Your task to perform on an android device: manage bookmarks in the chrome app Image 0: 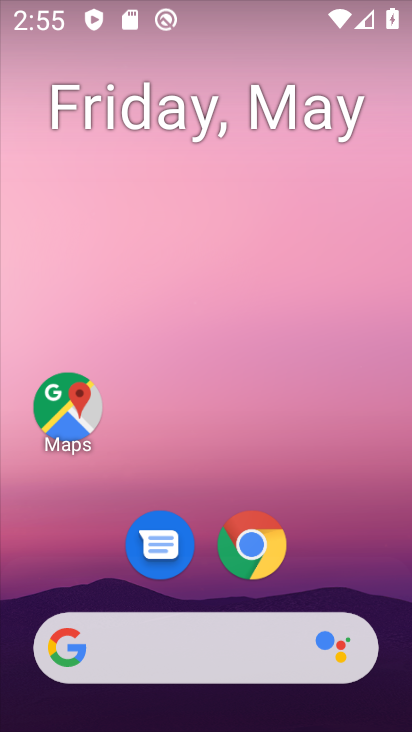
Step 0: click (256, 530)
Your task to perform on an android device: manage bookmarks in the chrome app Image 1: 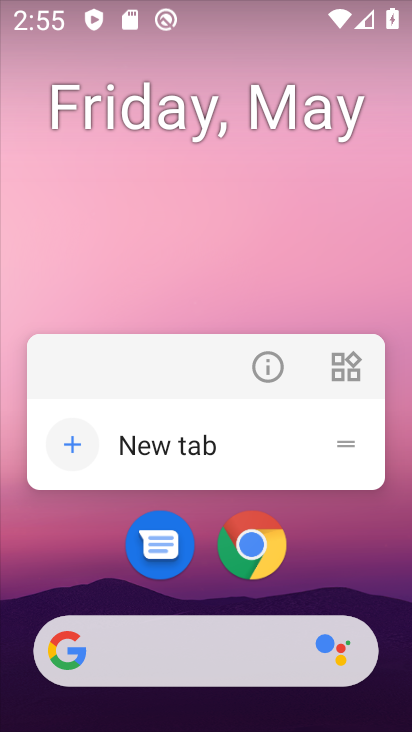
Step 1: click (245, 552)
Your task to perform on an android device: manage bookmarks in the chrome app Image 2: 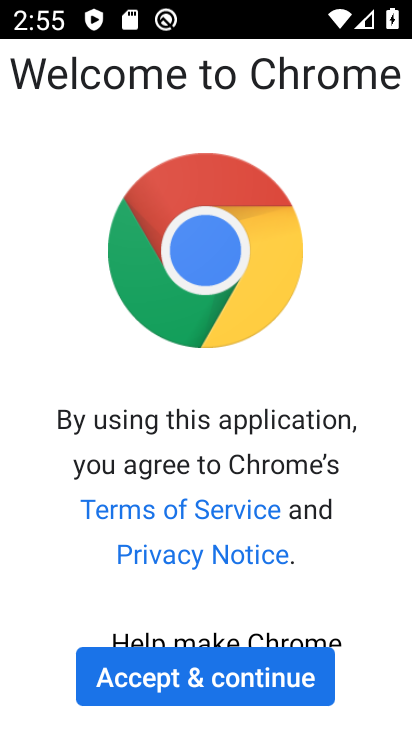
Step 2: click (195, 674)
Your task to perform on an android device: manage bookmarks in the chrome app Image 3: 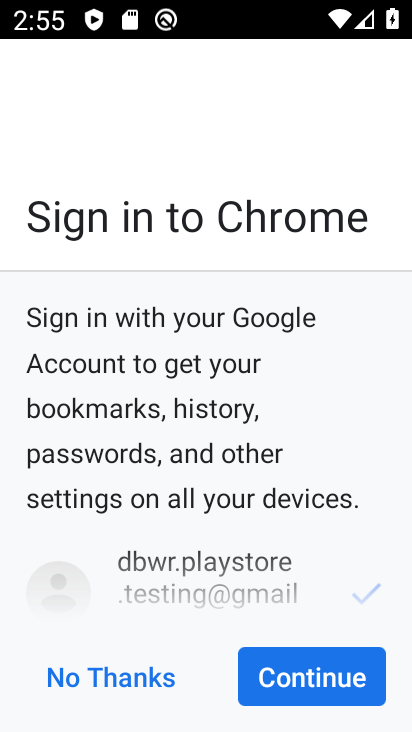
Step 3: click (294, 669)
Your task to perform on an android device: manage bookmarks in the chrome app Image 4: 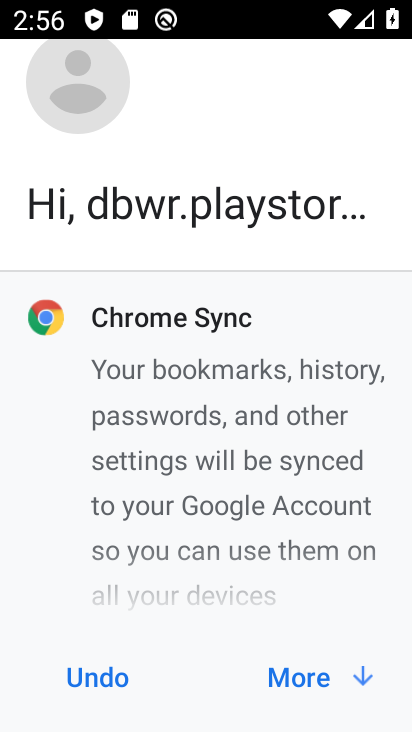
Step 4: click (322, 678)
Your task to perform on an android device: manage bookmarks in the chrome app Image 5: 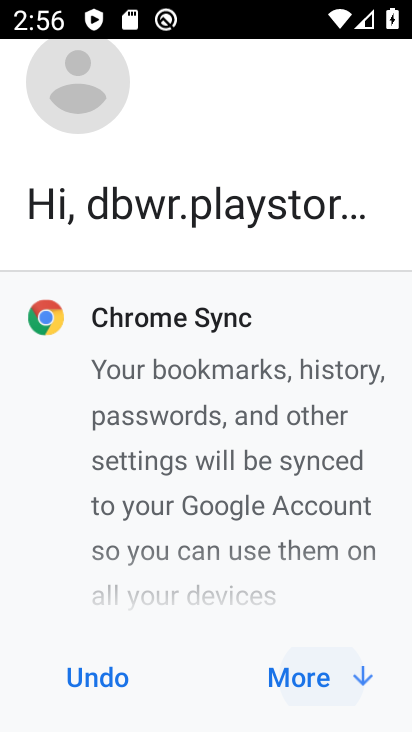
Step 5: click (322, 678)
Your task to perform on an android device: manage bookmarks in the chrome app Image 6: 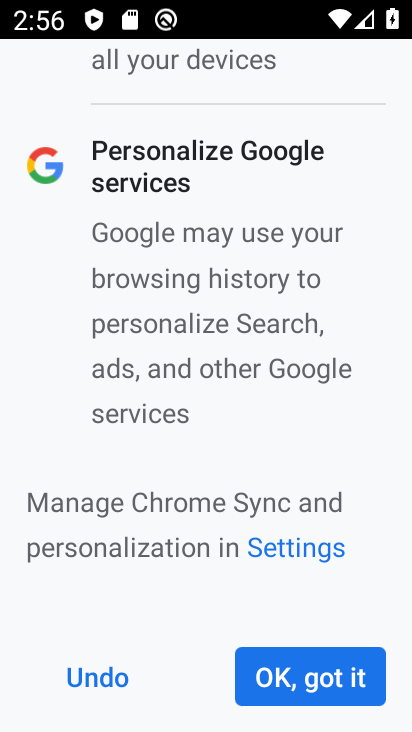
Step 6: click (322, 678)
Your task to perform on an android device: manage bookmarks in the chrome app Image 7: 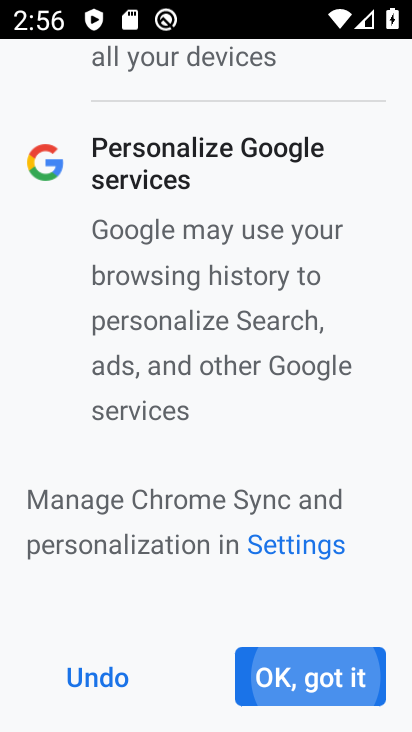
Step 7: click (322, 678)
Your task to perform on an android device: manage bookmarks in the chrome app Image 8: 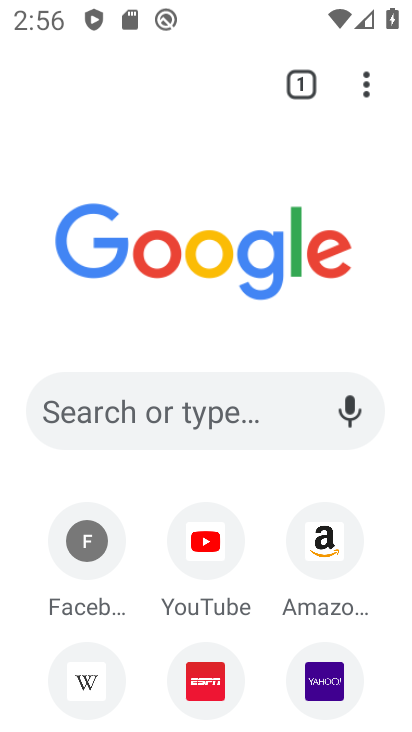
Step 8: click (364, 88)
Your task to perform on an android device: manage bookmarks in the chrome app Image 9: 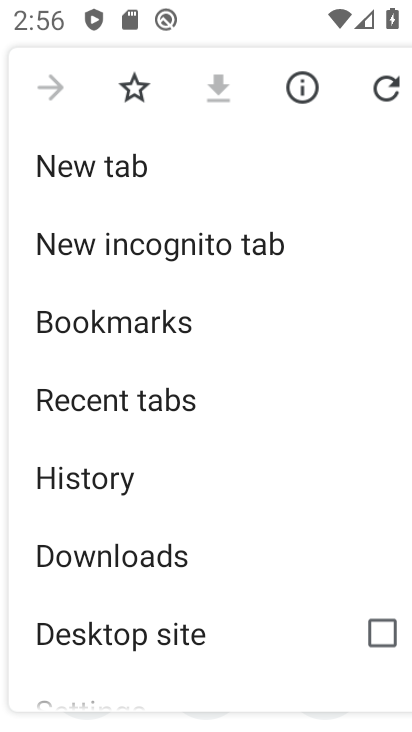
Step 9: drag from (118, 555) to (199, 360)
Your task to perform on an android device: manage bookmarks in the chrome app Image 10: 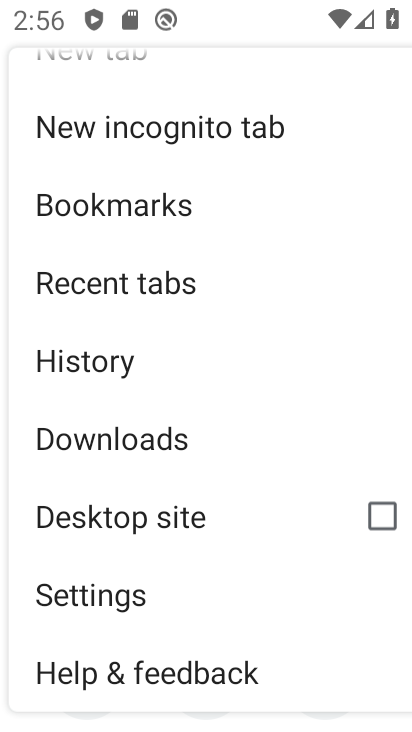
Step 10: click (147, 220)
Your task to perform on an android device: manage bookmarks in the chrome app Image 11: 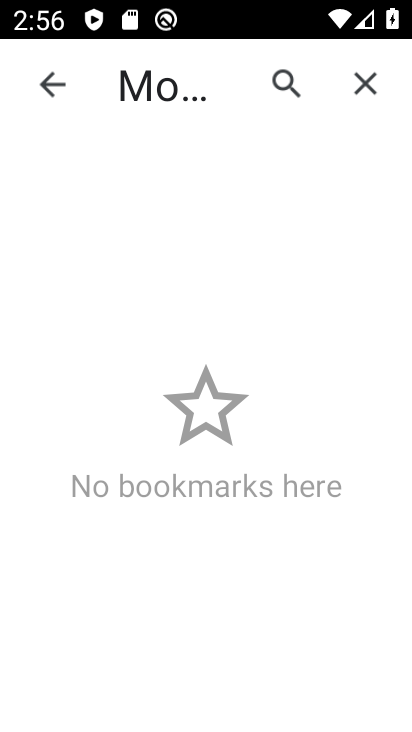
Step 11: task complete